Your task to perform on an android device: Open internet settings Image 0: 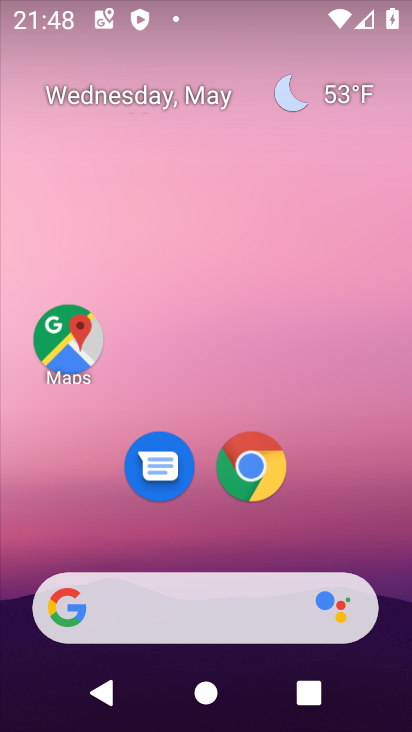
Step 0: drag from (211, 526) to (266, 37)
Your task to perform on an android device: Open internet settings Image 1: 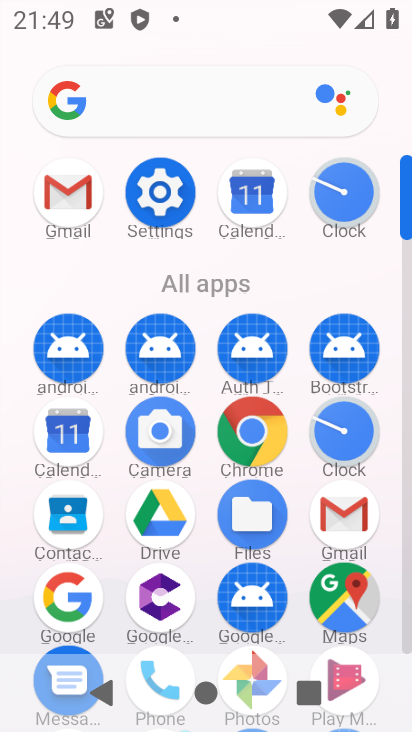
Step 1: click (162, 191)
Your task to perform on an android device: Open internet settings Image 2: 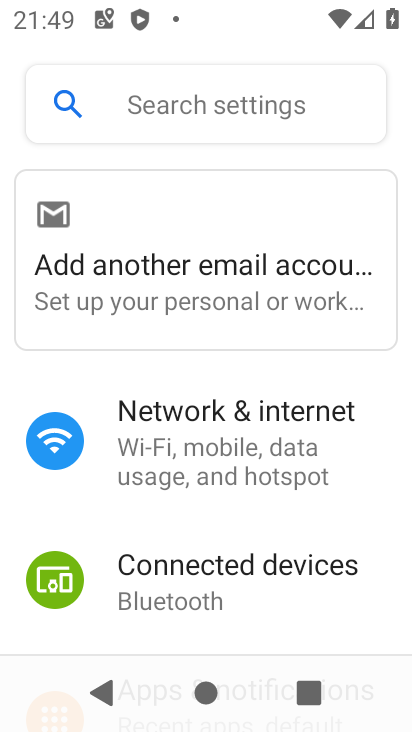
Step 2: click (177, 486)
Your task to perform on an android device: Open internet settings Image 3: 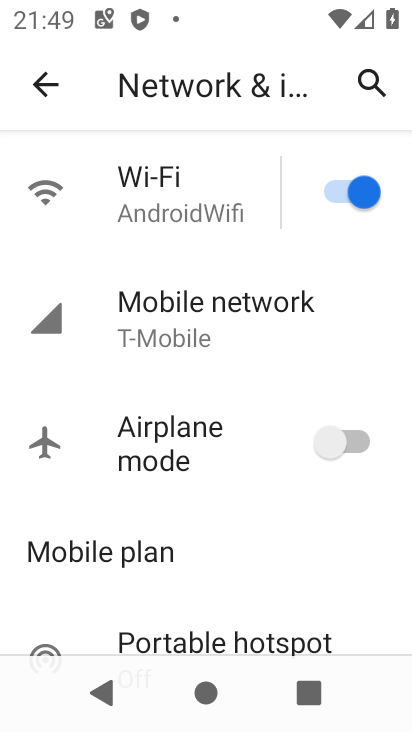
Step 3: task complete